Your task to perform on an android device: turn off data saver in the chrome app Image 0: 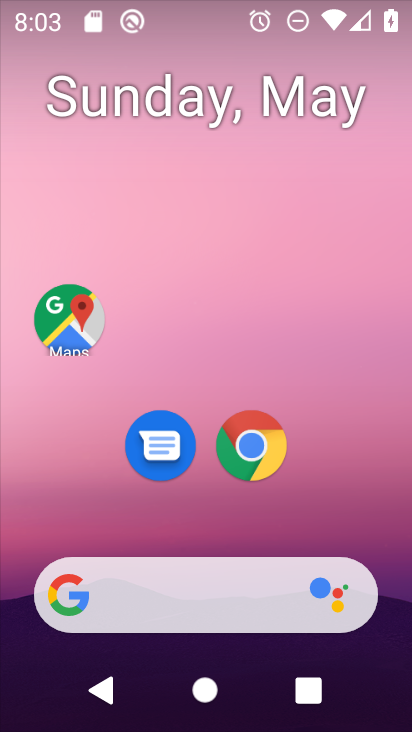
Step 0: drag from (209, 649) to (213, 48)
Your task to perform on an android device: turn off data saver in the chrome app Image 1: 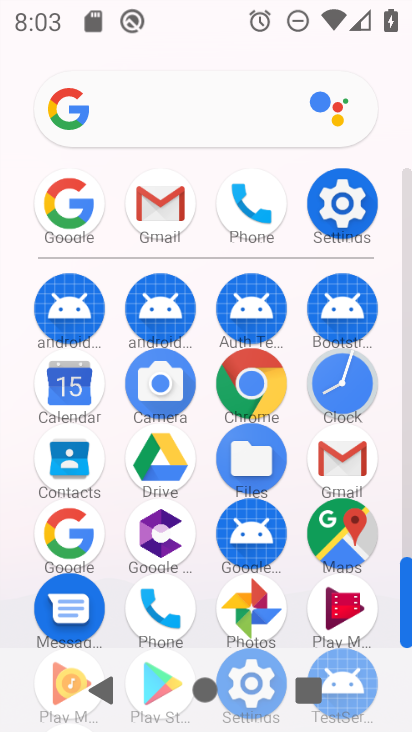
Step 1: click (256, 392)
Your task to perform on an android device: turn off data saver in the chrome app Image 2: 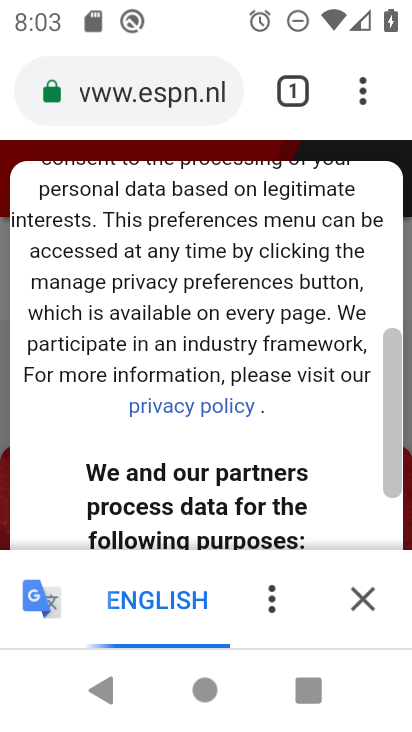
Step 2: click (364, 86)
Your task to perform on an android device: turn off data saver in the chrome app Image 3: 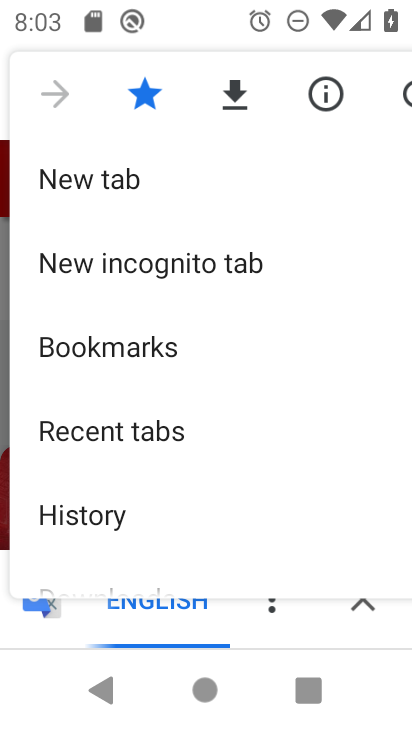
Step 3: drag from (234, 352) to (226, 81)
Your task to perform on an android device: turn off data saver in the chrome app Image 4: 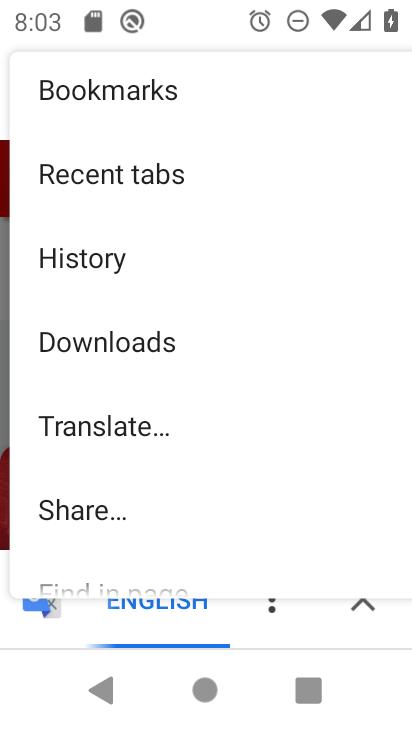
Step 4: drag from (183, 457) to (191, 57)
Your task to perform on an android device: turn off data saver in the chrome app Image 5: 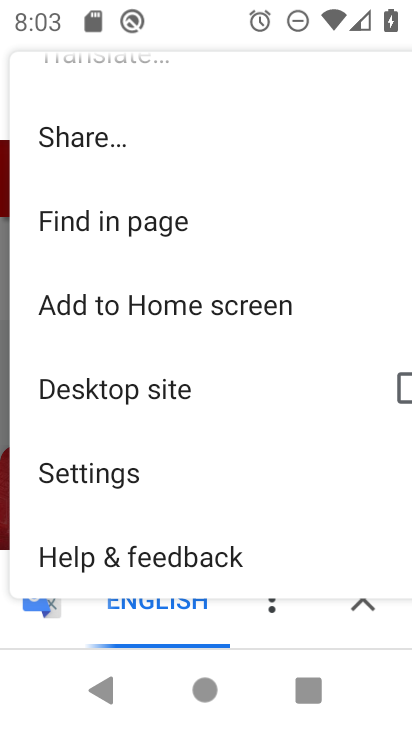
Step 5: drag from (185, 363) to (182, 143)
Your task to perform on an android device: turn off data saver in the chrome app Image 6: 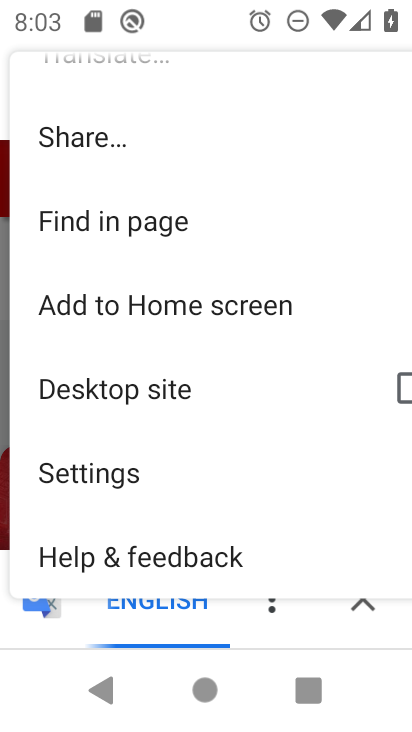
Step 6: click (119, 480)
Your task to perform on an android device: turn off data saver in the chrome app Image 7: 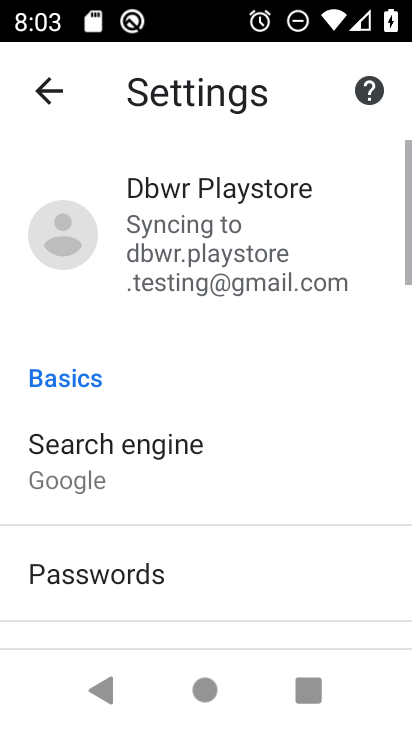
Step 7: drag from (188, 533) to (210, 32)
Your task to perform on an android device: turn off data saver in the chrome app Image 8: 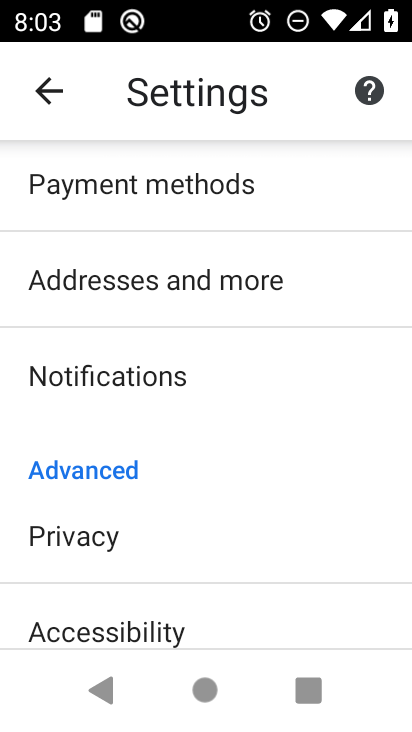
Step 8: drag from (157, 513) to (170, 130)
Your task to perform on an android device: turn off data saver in the chrome app Image 9: 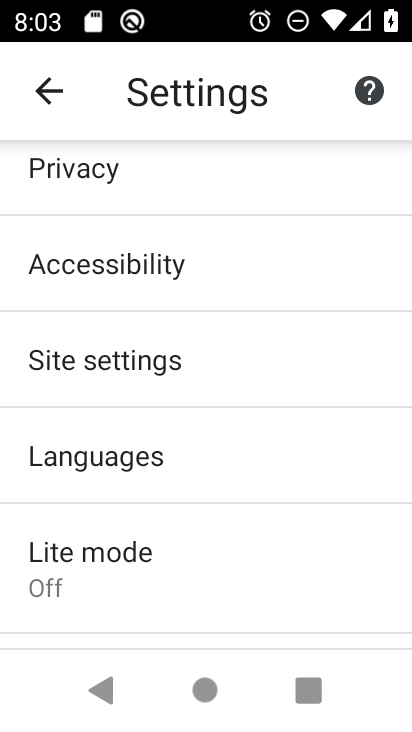
Step 9: click (175, 594)
Your task to perform on an android device: turn off data saver in the chrome app Image 10: 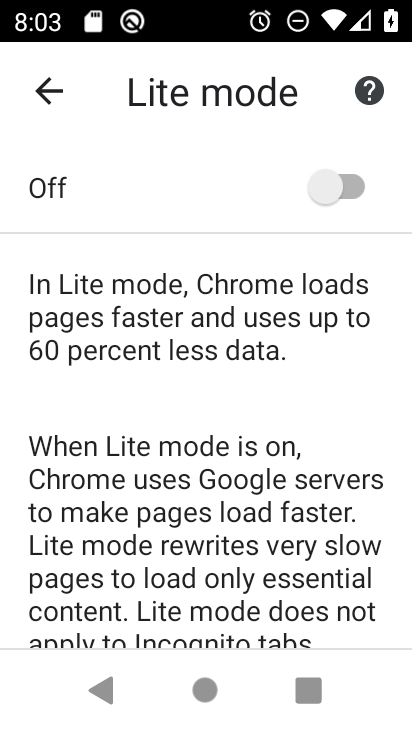
Step 10: task complete